Your task to perform on an android device: toggle priority inbox in the gmail app Image 0: 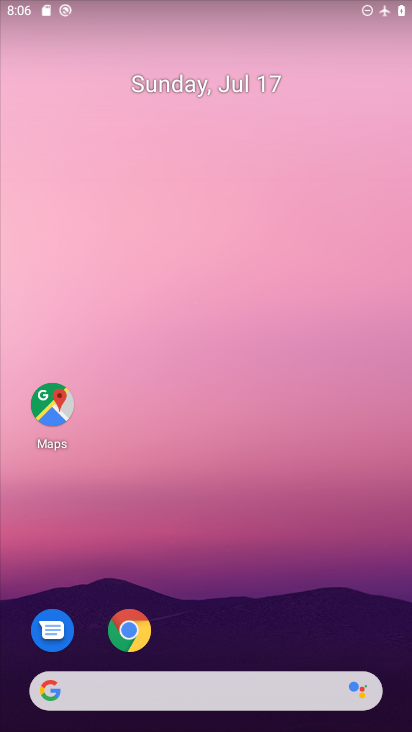
Step 0: drag from (393, 609) to (271, 181)
Your task to perform on an android device: toggle priority inbox in the gmail app Image 1: 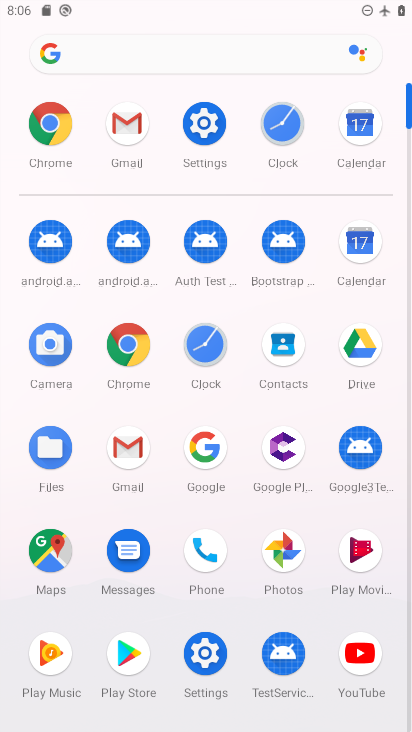
Step 1: click (131, 452)
Your task to perform on an android device: toggle priority inbox in the gmail app Image 2: 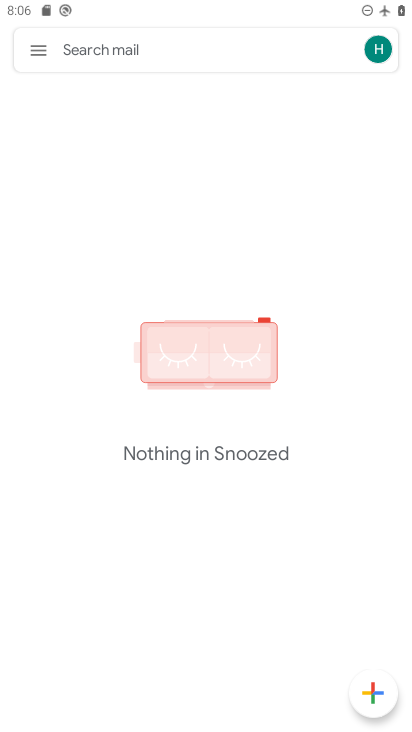
Step 2: click (21, 52)
Your task to perform on an android device: toggle priority inbox in the gmail app Image 3: 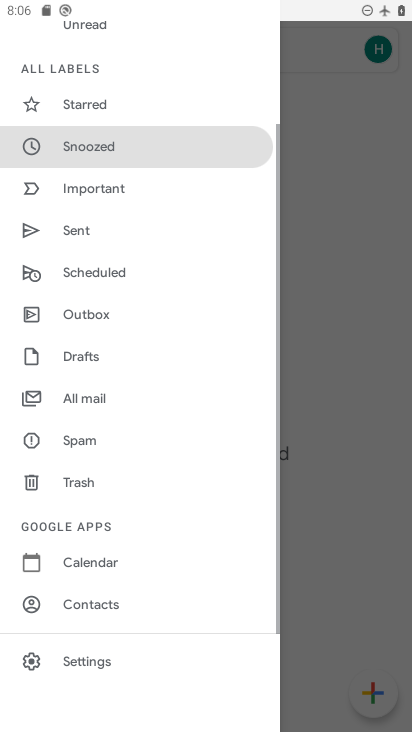
Step 3: click (64, 675)
Your task to perform on an android device: toggle priority inbox in the gmail app Image 4: 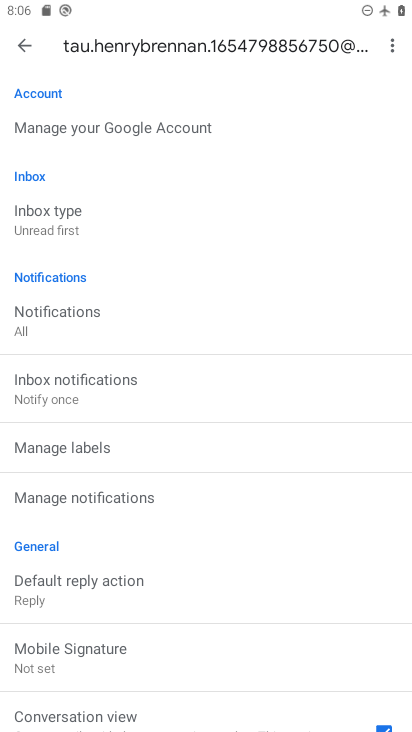
Step 4: click (66, 237)
Your task to perform on an android device: toggle priority inbox in the gmail app Image 5: 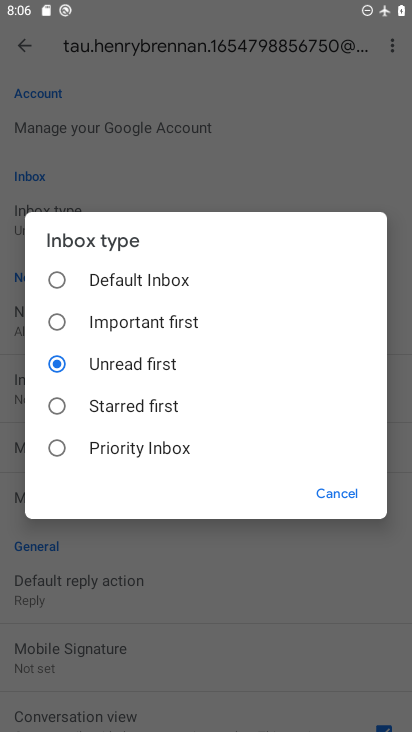
Step 5: click (61, 408)
Your task to perform on an android device: toggle priority inbox in the gmail app Image 6: 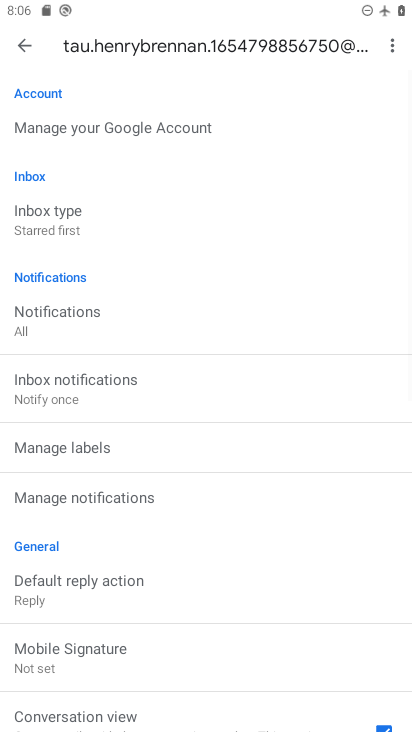
Step 6: task complete